Your task to perform on an android device: Go to Google Image 0: 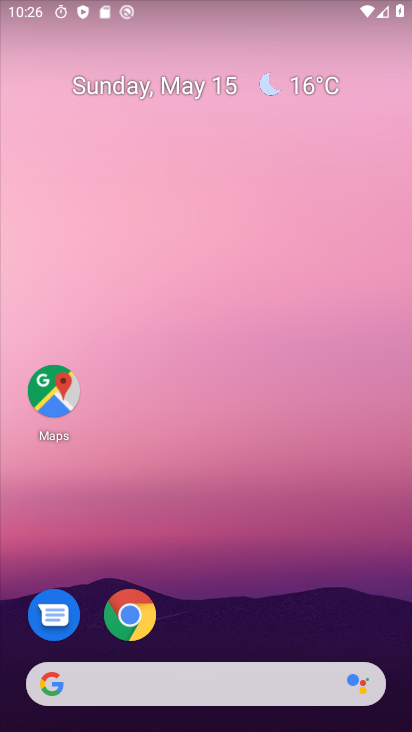
Step 0: drag from (328, 483) to (389, 19)
Your task to perform on an android device: Go to Google Image 1: 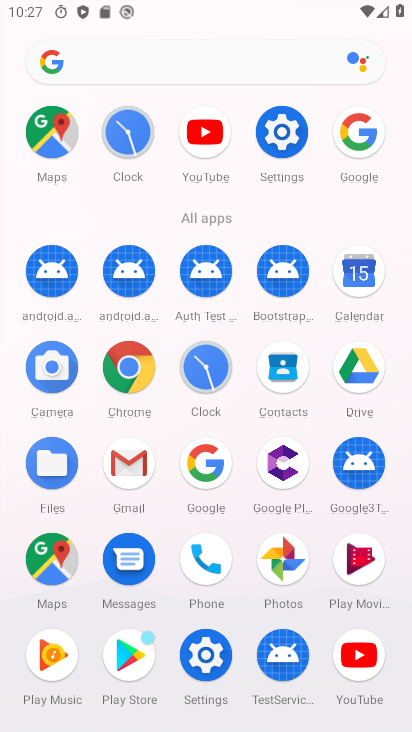
Step 1: click (215, 487)
Your task to perform on an android device: Go to Google Image 2: 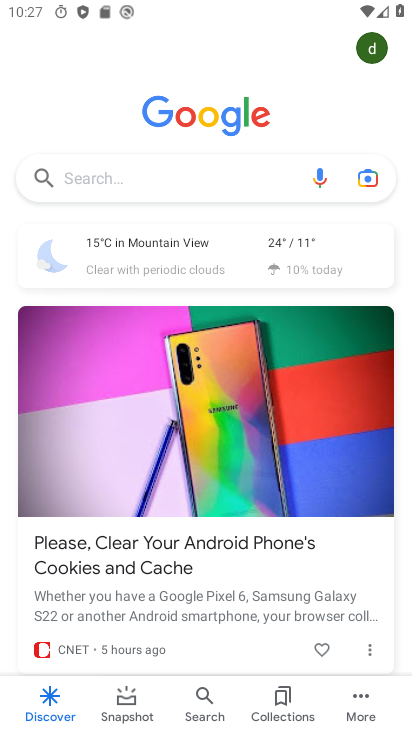
Step 2: task complete